Your task to perform on an android device: turn vacation reply on in the gmail app Image 0: 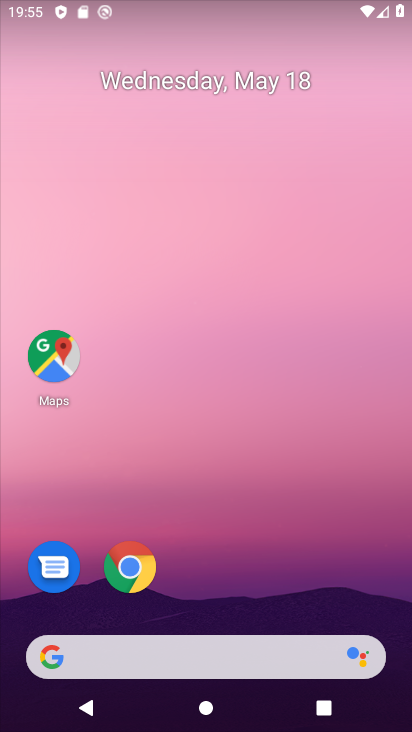
Step 0: drag from (166, 589) to (187, 286)
Your task to perform on an android device: turn vacation reply on in the gmail app Image 1: 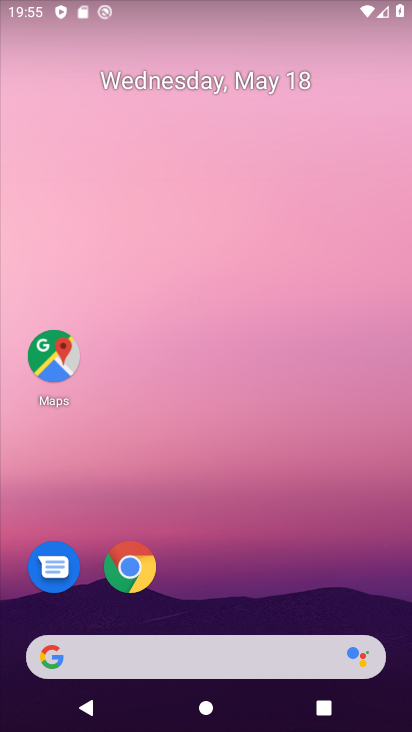
Step 1: drag from (214, 614) to (246, 196)
Your task to perform on an android device: turn vacation reply on in the gmail app Image 2: 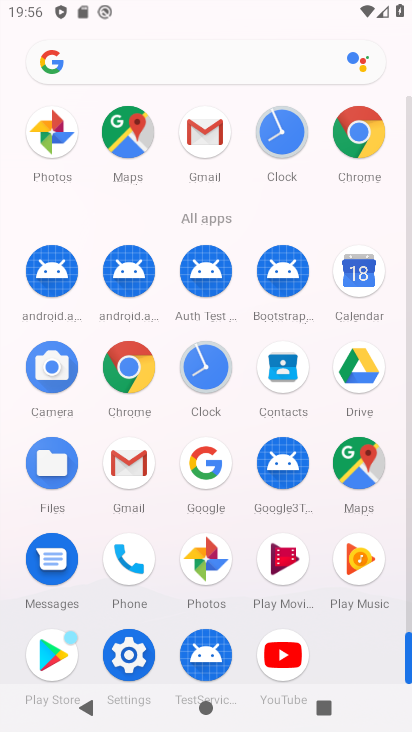
Step 2: click (198, 144)
Your task to perform on an android device: turn vacation reply on in the gmail app Image 3: 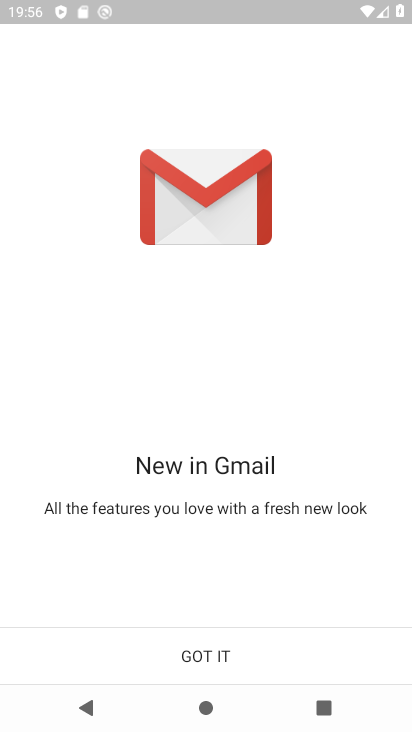
Step 3: click (205, 655)
Your task to perform on an android device: turn vacation reply on in the gmail app Image 4: 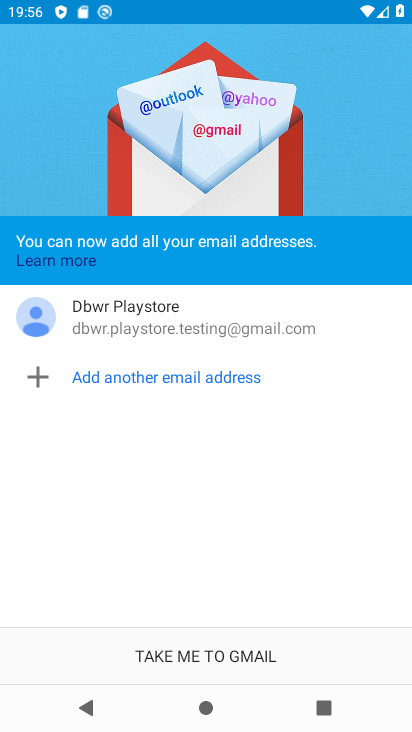
Step 4: click (207, 647)
Your task to perform on an android device: turn vacation reply on in the gmail app Image 5: 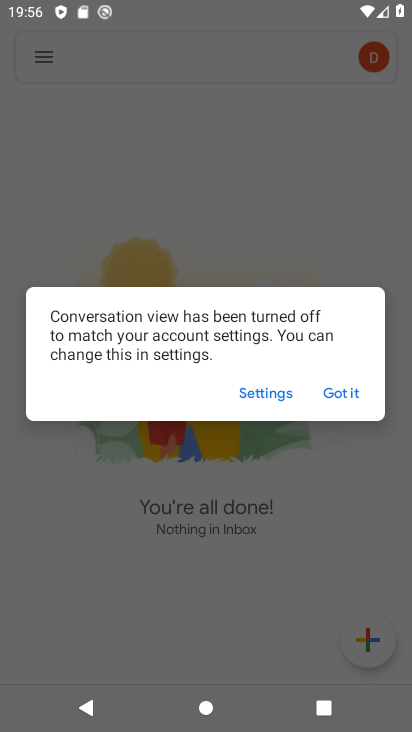
Step 5: click (348, 400)
Your task to perform on an android device: turn vacation reply on in the gmail app Image 6: 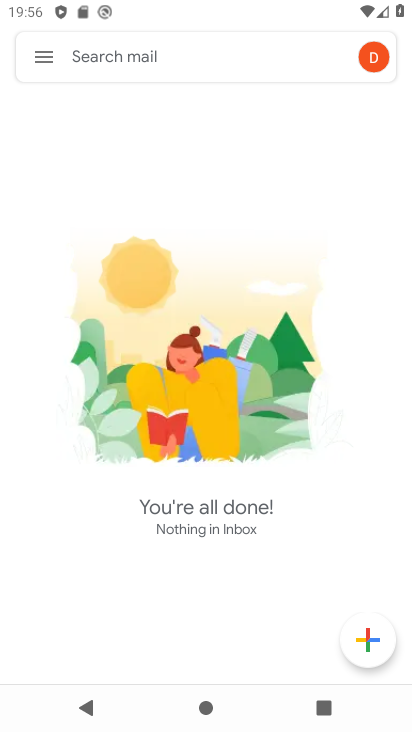
Step 6: click (37, 60)
Your task to perform on an android device: turn vacation reply on in the gmail app Image 7: 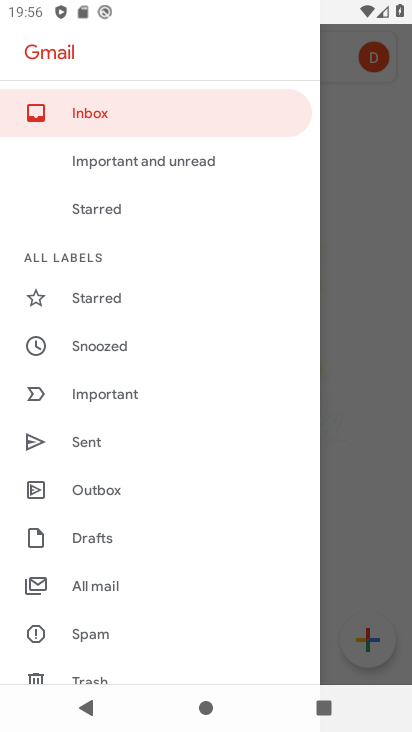
Step 7: drag from (156, 610) to (153, 262)
Your task to perform on an android device: turn vacation reply on in the gmail app Image 8: 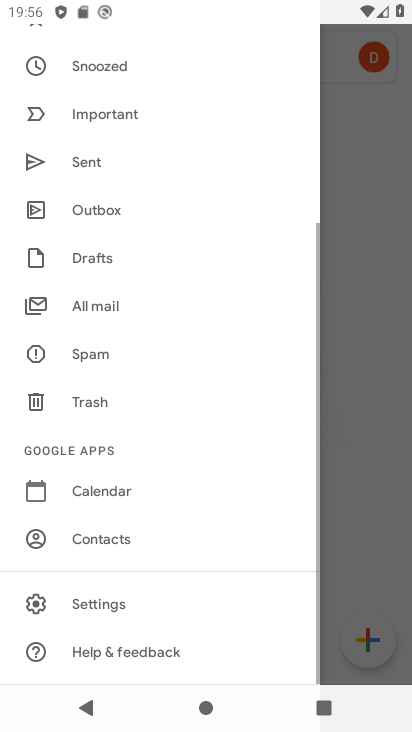
Step 8: click (74, 600)
Your task to perform on an android device: turn vacation reply on in the gmail app Image 9: 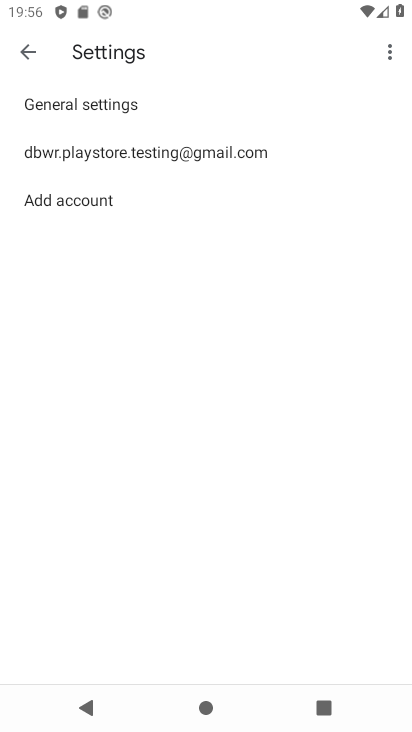
Step 9: click (123, 158)
Your task to perform on an android device: turn vacation reply on in the gmail app Image 10: 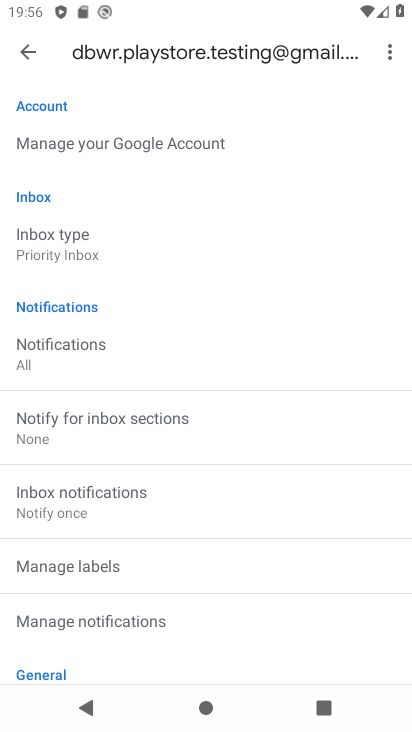
Step 10: drag from (97, 578) to (87, 213)
Your task to perform on an android device: turn vacation reply on in the gmail app Image 11: 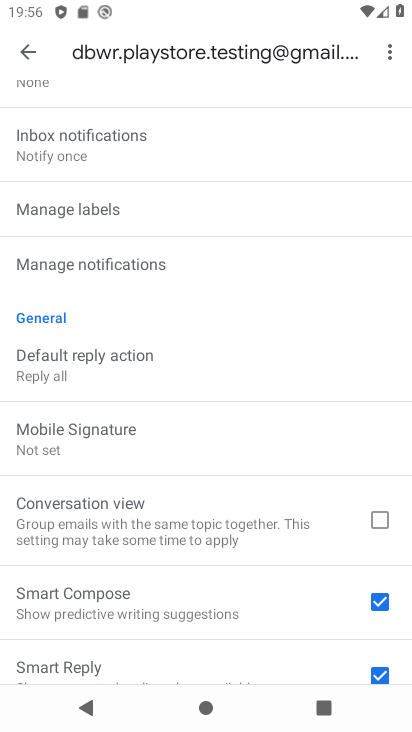
Step 11: drag from (198, 601) to (192, 322)
Your task to perform on an android device: turn vacation reply on in the gmail app Image 12: 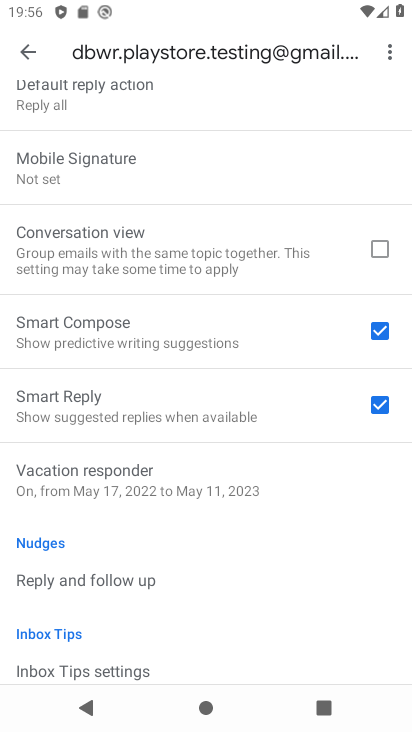
Step 12: click (149, 478)
Your task to perform on an android device: turn vacation reply on in the gmail app Image 13: 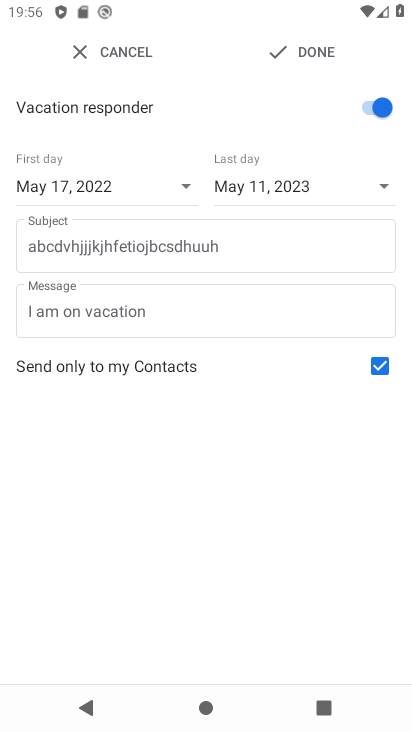
Step 13: task complete